Your task to perform on an android device: Check the weather Image 0: 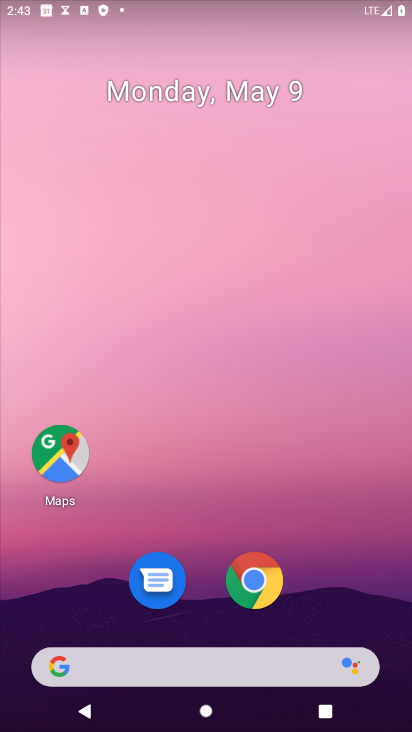
Step 0: click (254, 588)
Your task to perform on an android device: Check the weather Image 1: 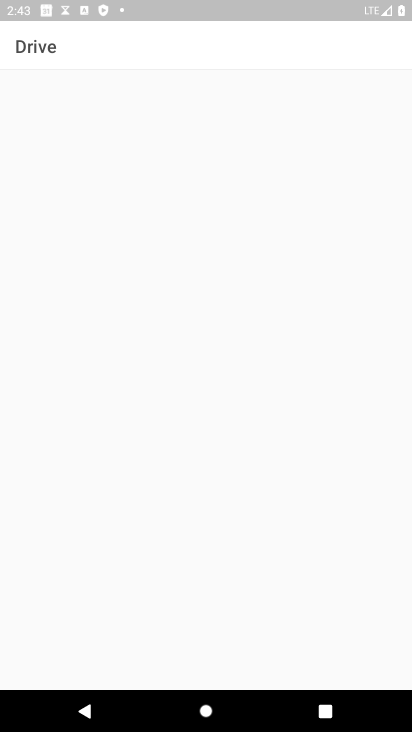
Step 1: press home button
Your task to perform on an android device: Check the weather Image 2: 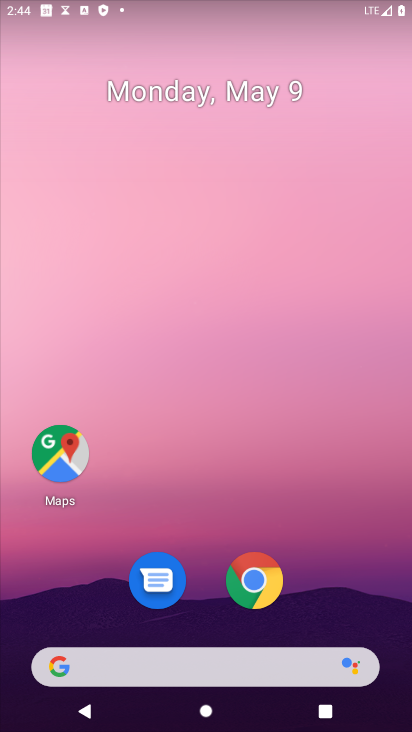
Step 2: drag from (294, 505) to (230, 112)
Your task to perform on an android device: Check the weather Image 3: 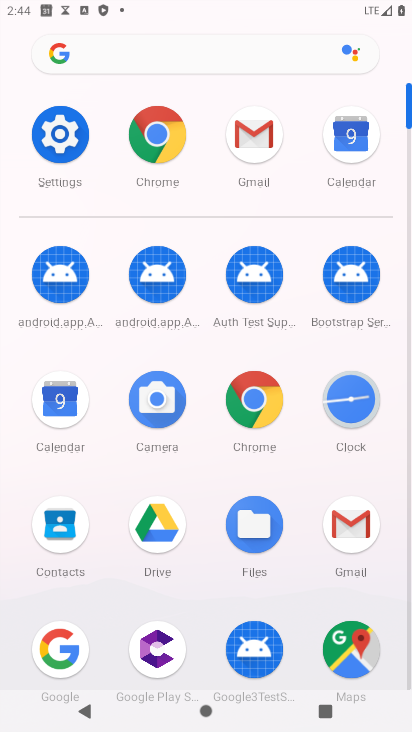
Step 3: click (62, 657)
Your task to perform on an android device: Check the weather Image 4: 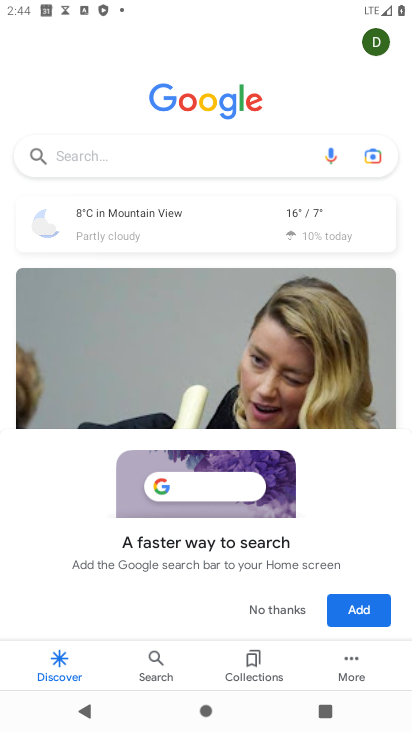
Step 4: click (123, 213)
Your task to perform on an android device: Check the weather Image 5: 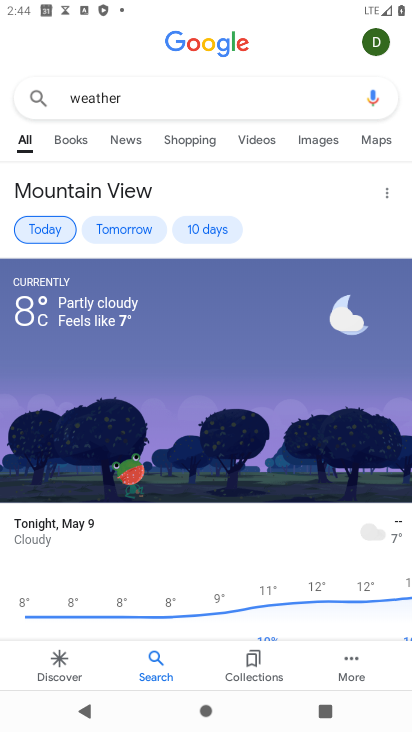
Step 5: task complete